Your task to perform on an android device: Search for Mexican restaurants on Maps Image 0: 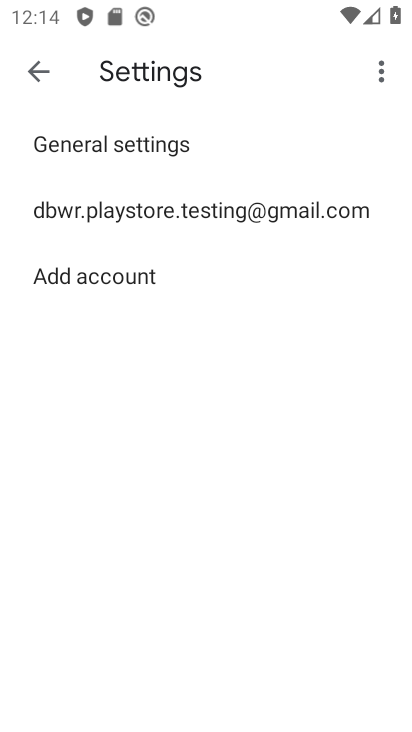
Step 0: press home button
Your task to perform on an android device: Search for Mexican restaurants on Maps Image 1: 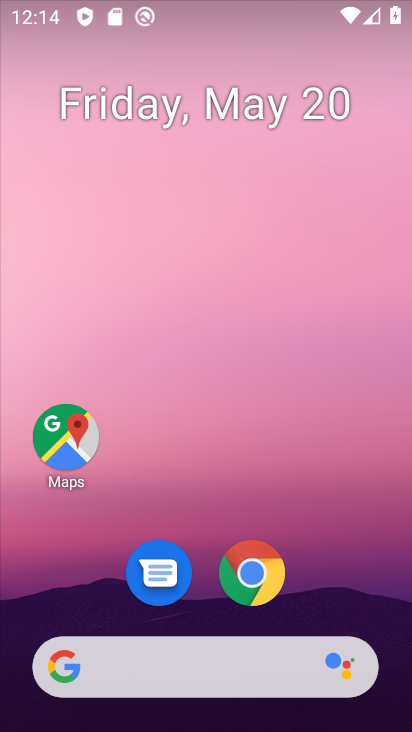
Step 1: drag from (331, 599) to (285, 32)
Your task to perform on an android device: Search for Mexican restaurants on Maps Image 2: 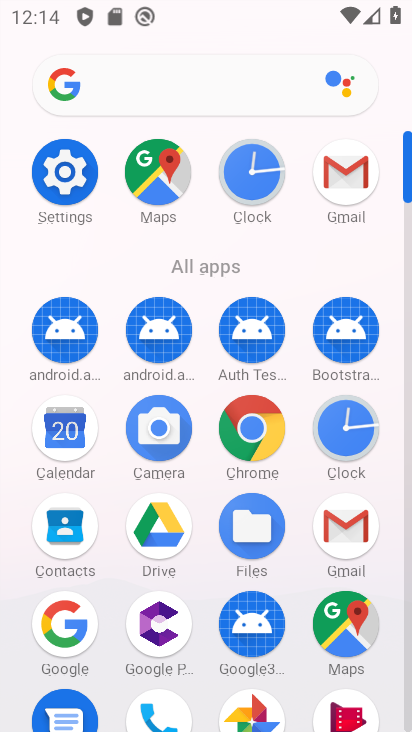
Step 2: click (148, 162)
Your task to perform on an android device: Search for Mexican restaurants on Maps Image 3: 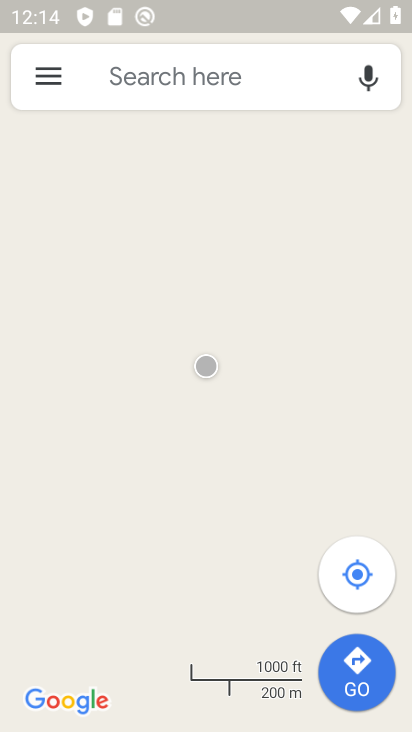
Step 3: click (185, 81)
Your task to perform on an android device: Search for Mexican restaurants on Maps Image 4: 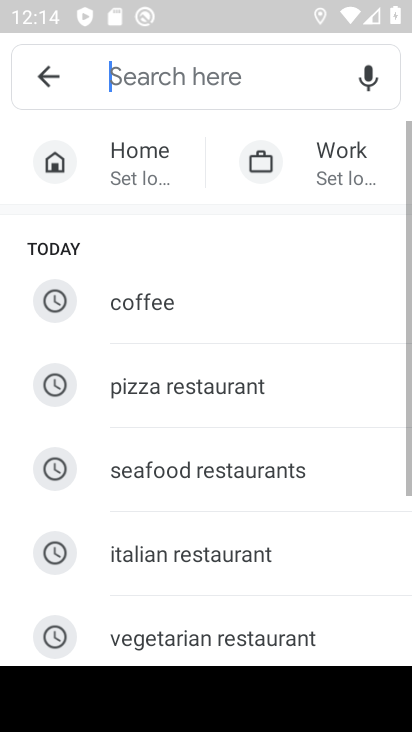
Step 4: type "mexican restaurant"
Your task to perform on an android device: Search for Mexican restaurants on Maps Image 5: 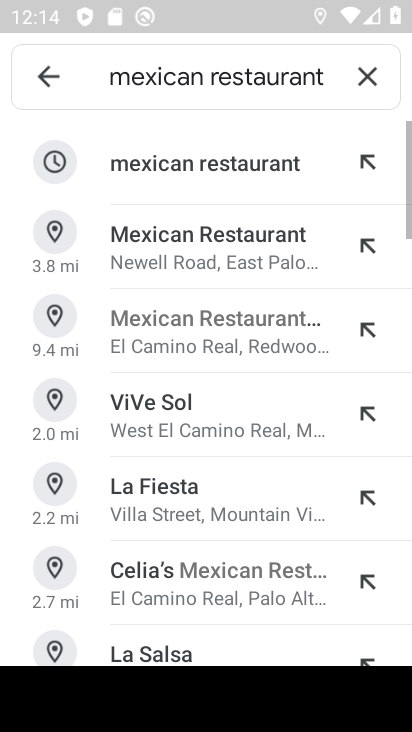
Step 5: click (173, 145)
Your task to perform on an android device: Search for Mexican restaurants on Maps Image 6: 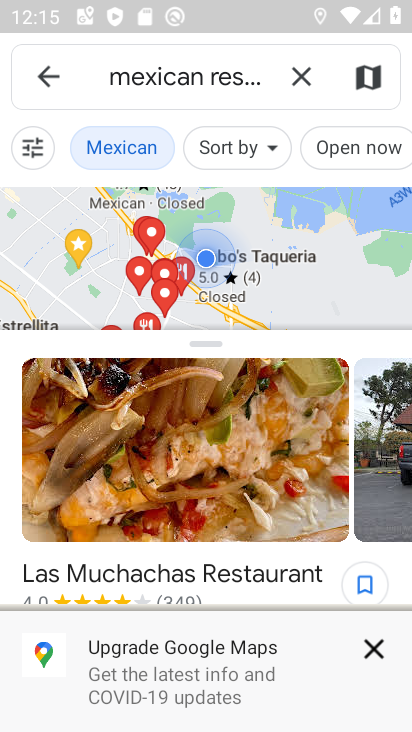
Step 6: task complete